Your task to perform on an android device: move a message to another label in the gmail app Image 0: 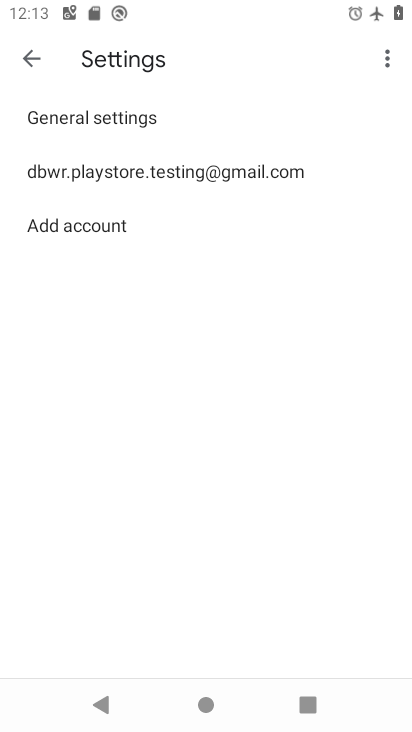
Step 0: press home button
Your task to perform on an android device: move a message to another label in the gmail app Image 1: 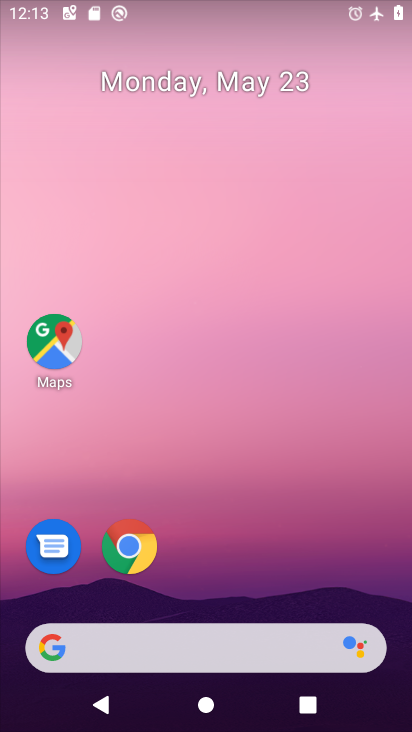
Step 1: drag from (240, 621) to (240, 130)
Your task to perform on an android device: move a message to another label in the gmail app Image 2: 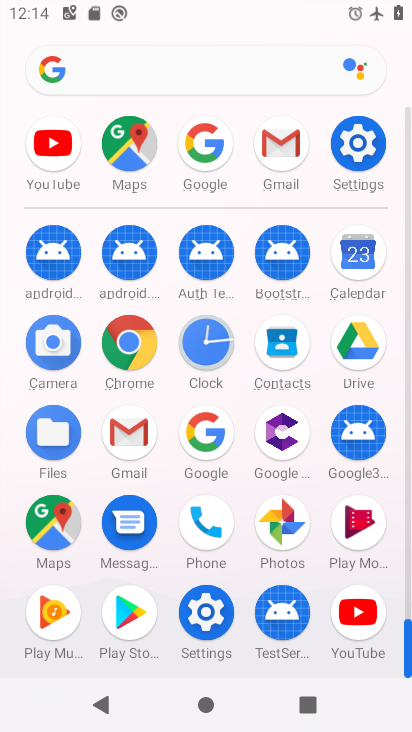
Step 2: click (131, 448)
Your task to perform on an android device: move a message to another label in the gmail app Image 3: 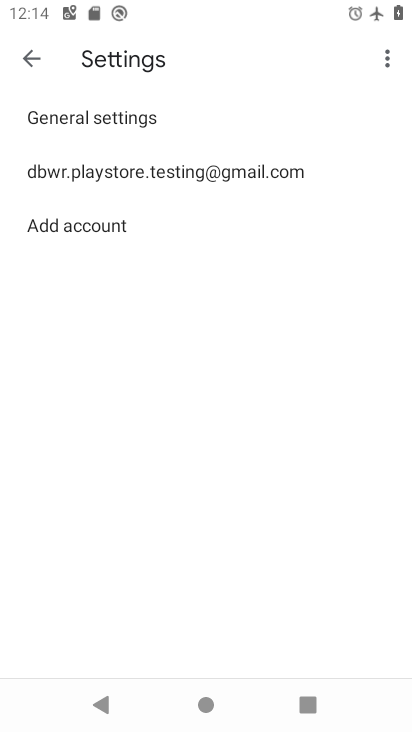
Step 3: click (24, 65)
Your task to perform on an android device: move a message to another label in the gmail app Image 4: 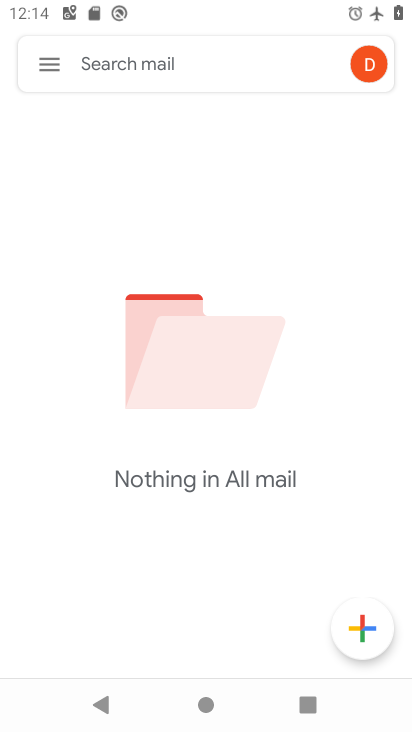
Step 4: task complete